Your task to perform on an android device: see tabs open on other devices in the chrome app Image 0: 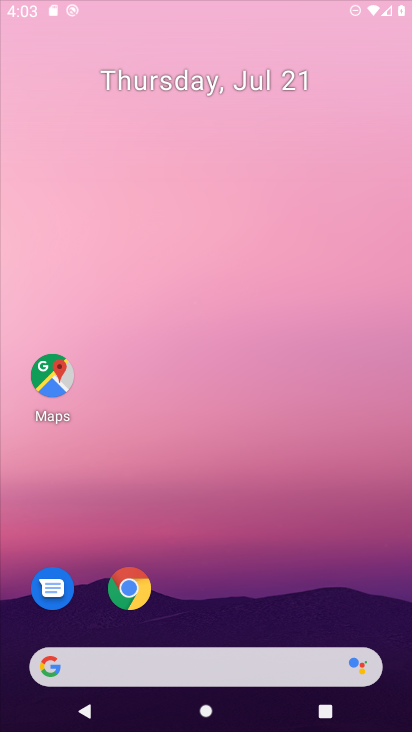
Step 0: click (241, 46)
Your task to perform on an android device: see tabs open on other devices in the chrome app Image 1: 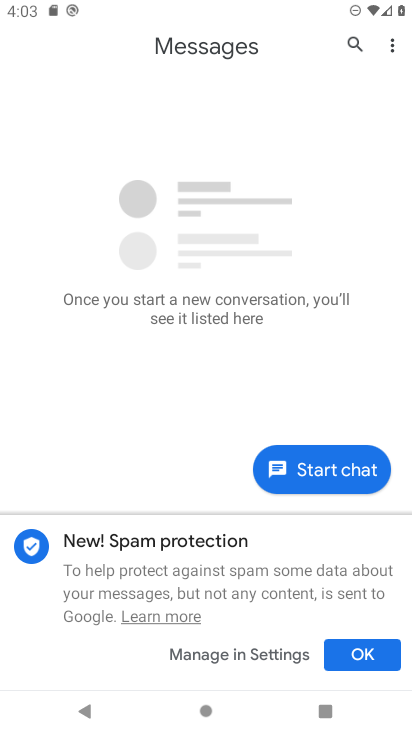
Step 1: press home button
Your task to perform on an android device: see tabs open on other devices in the chrome app Image 2: 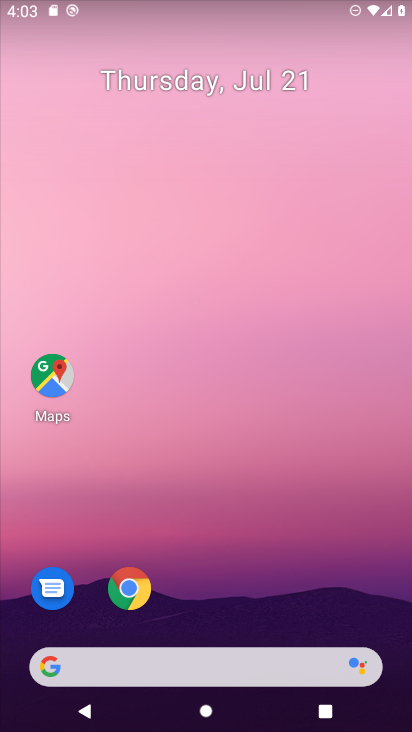
Step 2: drag from (271, 614) to (321, 64)
Your task to perform on an android device: see tabs open on other devices in the chrome app Image 3: 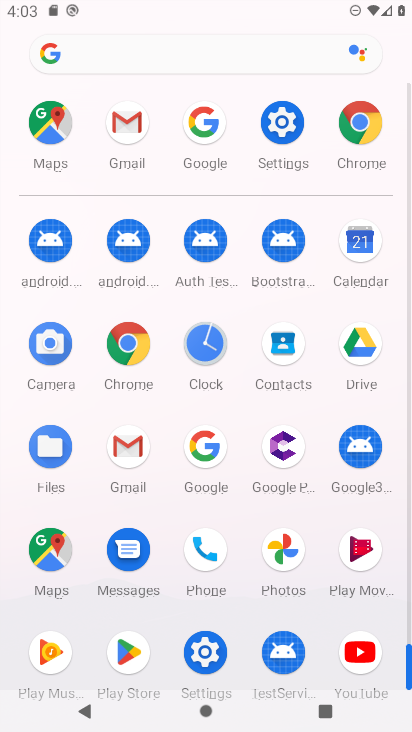
Step 3: click (356, 138)
Your task to perform on an android device: see tabs open on other devices in the chrome app Image 4: 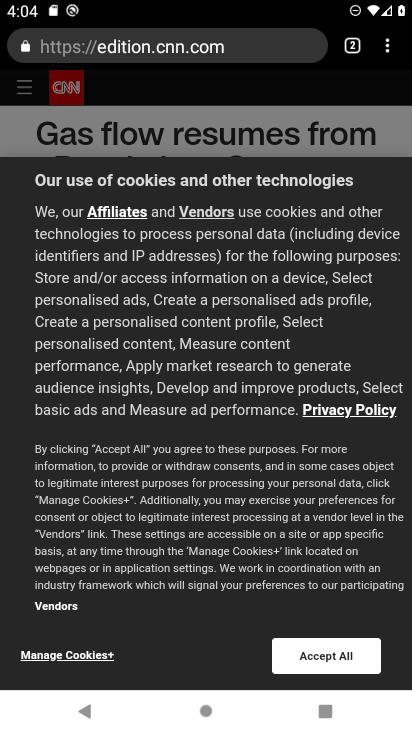
Step 4: task complete